Your task to perform on an android device: toggle show notifications on the lock screen Image 0: 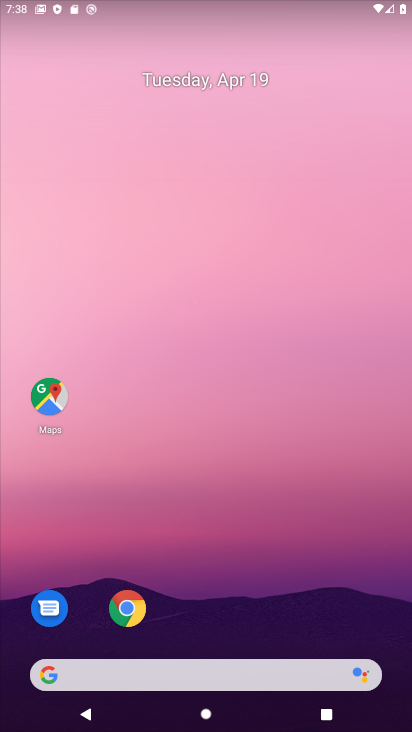
Step 0: drag from (315, 633) to (316, 177)
Your task to perform on an android device: toggle show notifications on the lock screen Image 1: 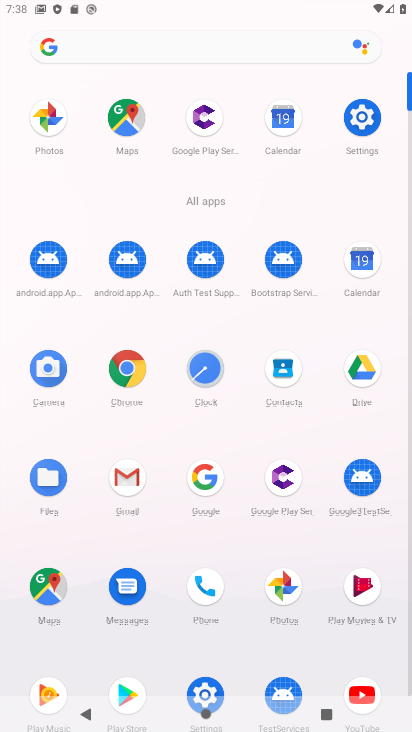
Step 1: click (355, 106)
Your task to perform on an android device: toggle show notifications on the lock screen Image 2: 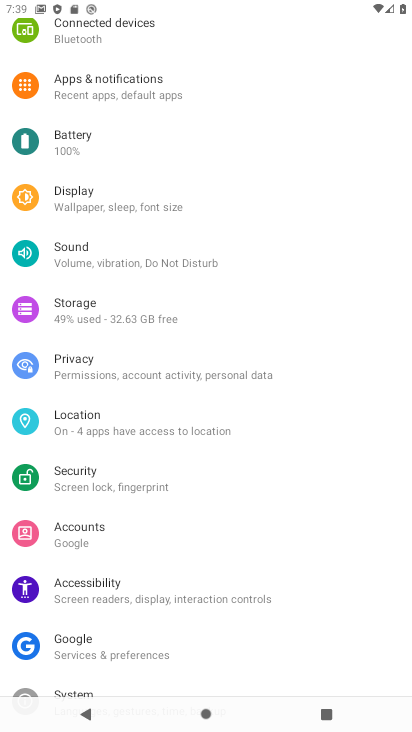
Step 2: click (209, 436)
Your task to perform on an android device: toggle show notifications on the lock screen Image 3: 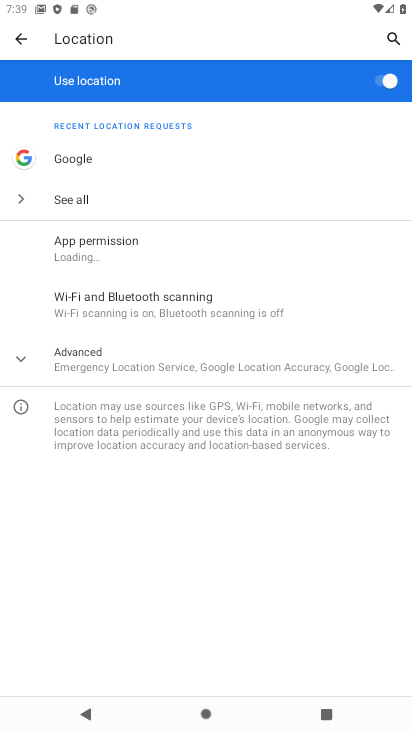
Step 3: click (79, 730)
Your task to perform on an android device: toggle show notifications on the lock screen Image 4: 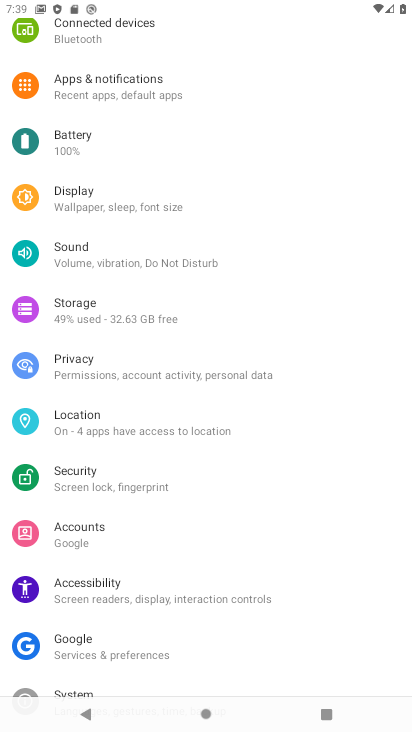
Step 4: click (130, 103)
Your task to perform on an android device: toggle show notifications on the lock screen Image 5: 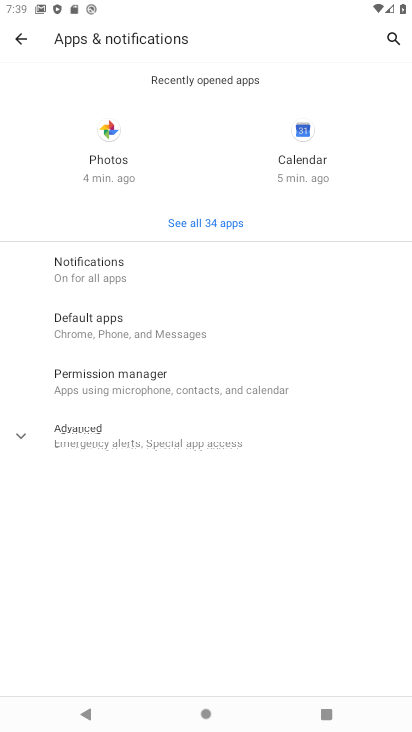
Step 5: click (148, 279)
Your task to perform on an android device: toggle show notifications on the lock screen Image 6: 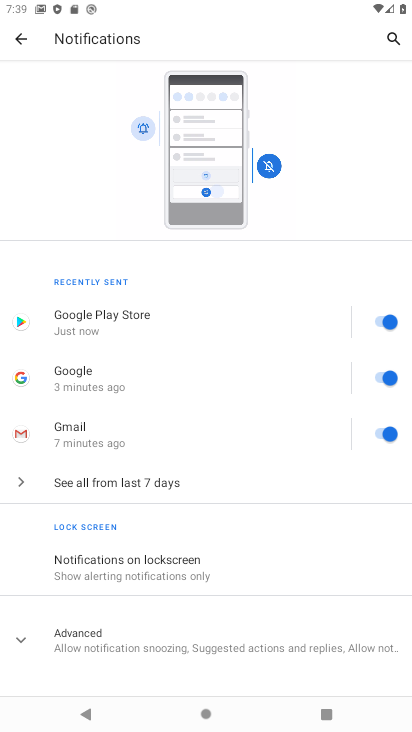
Step 6: click (215, 595)
Your task to perform on an android device: toggle show notifications on the lock screen Image 7: 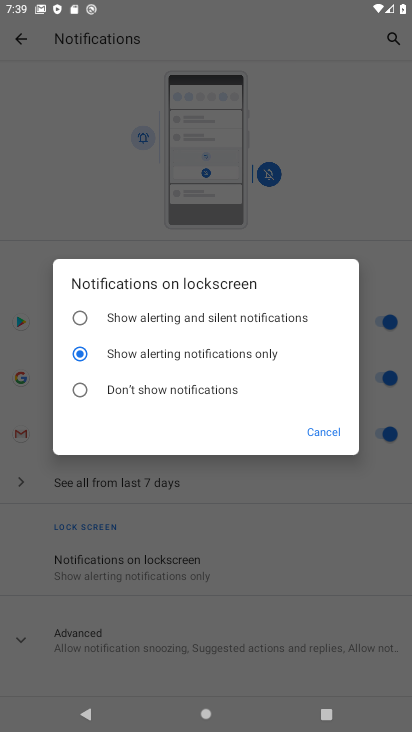
Step 7: task complete